Your task to perform on an android device: Find coffee shops on Maps Image 0: 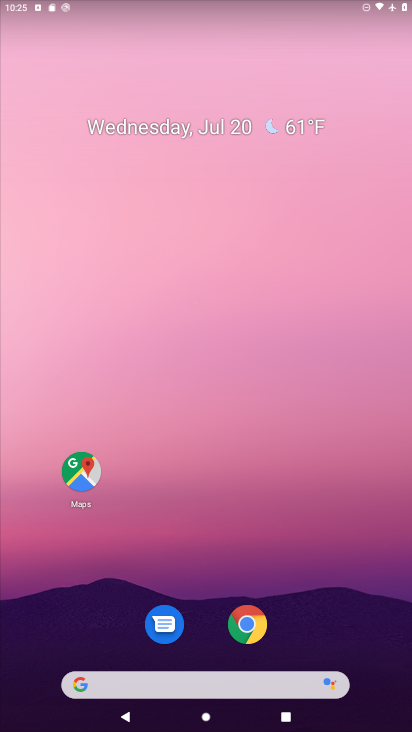
Step 0: click (89, 472)
Your task to perform on an android device: Find coffee shops on Maps Image 1: 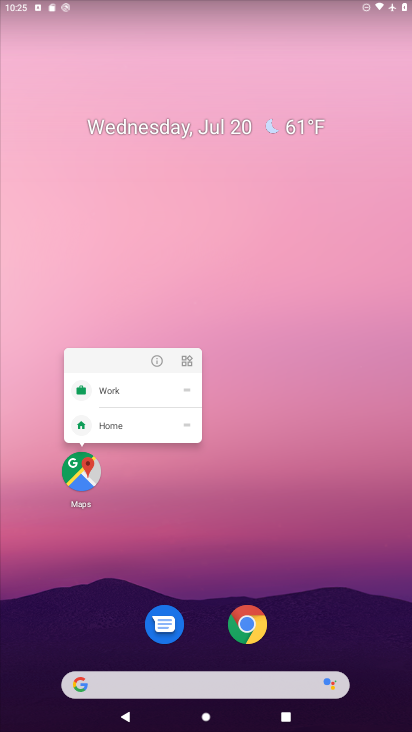
Step 1: click (89, 472)
Your task to perform on an android device: Find coffee shops on Maps Image 2: 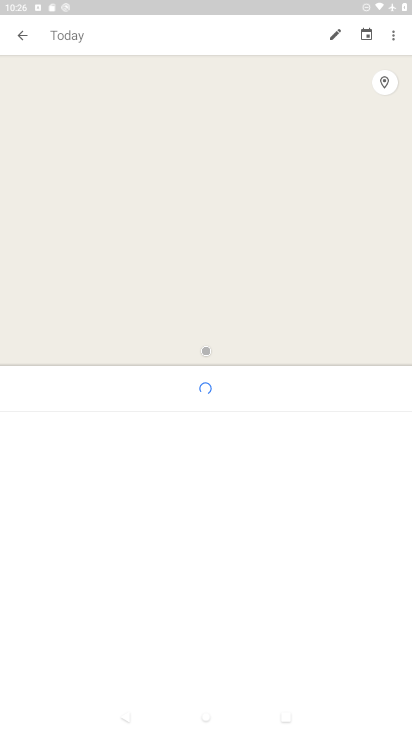
Step 2: click (25, 37)
Your task to perform on an android device: Find coffee shops on Maps Image 3: 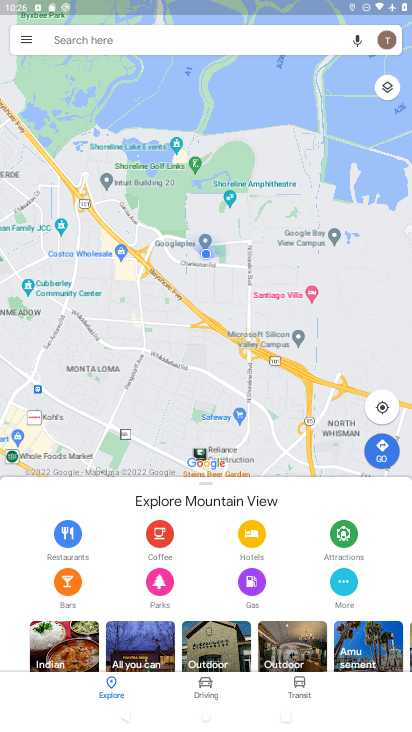
Step 3: click (90, 38)
Your task to perform on an android device: Find coffee shops on Maps Image 4: 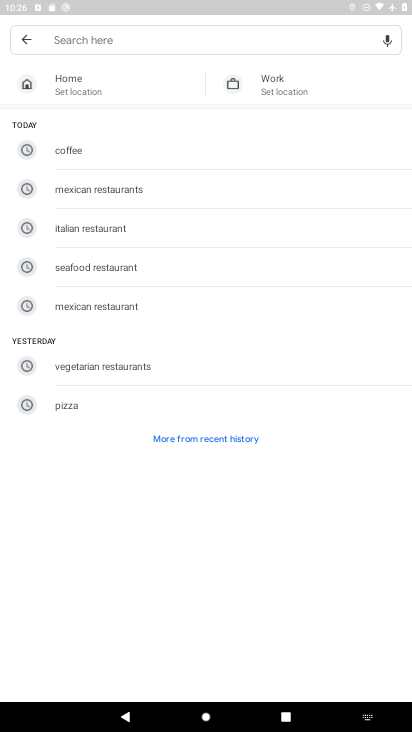
Step 4: type "coffee shops"
Your task to perform on an android device: Find coffee shops on Maps Image 5: 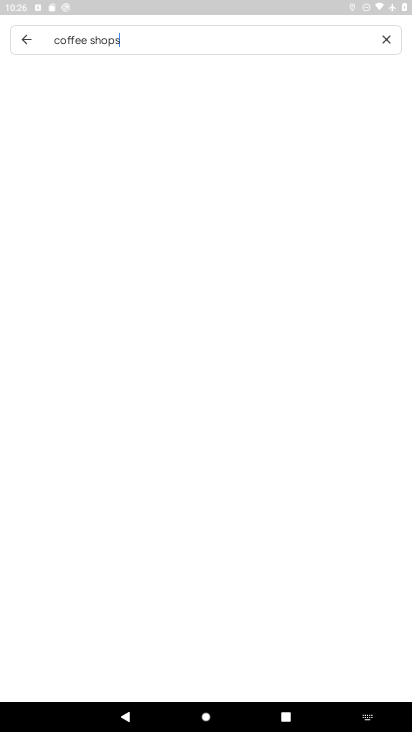
Step 5: type ""
Your task to perform on an android device: Find coffee shops on Maps Image 6: 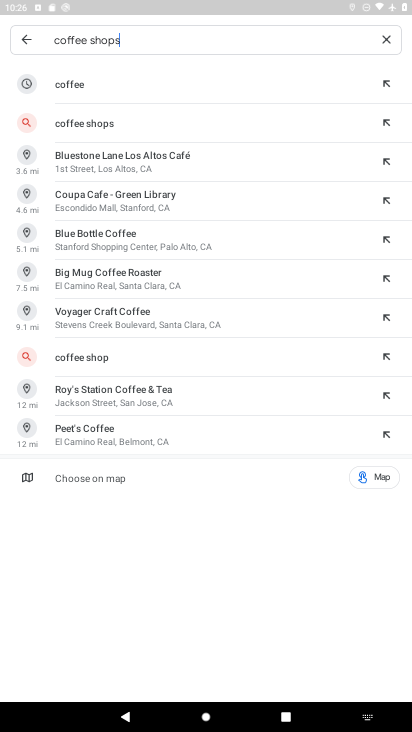
Step 6: click (154, 118)
Your task to perform on an android device: Find coffee shops on Maps Image 7: 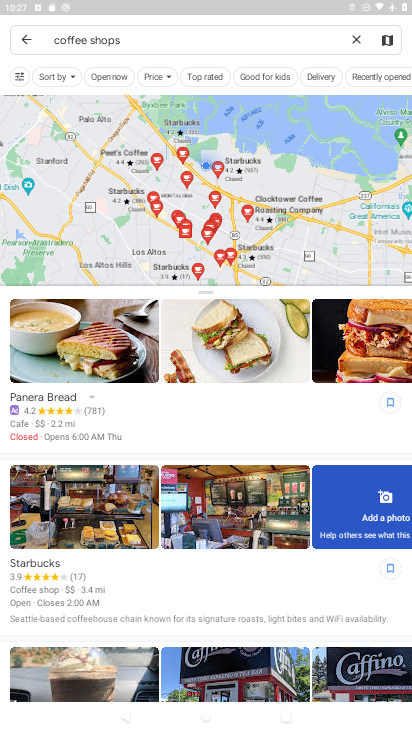
Step 7: task complete